Your task to perform on an android device: What's a good restaurant in Miami? Image 0: 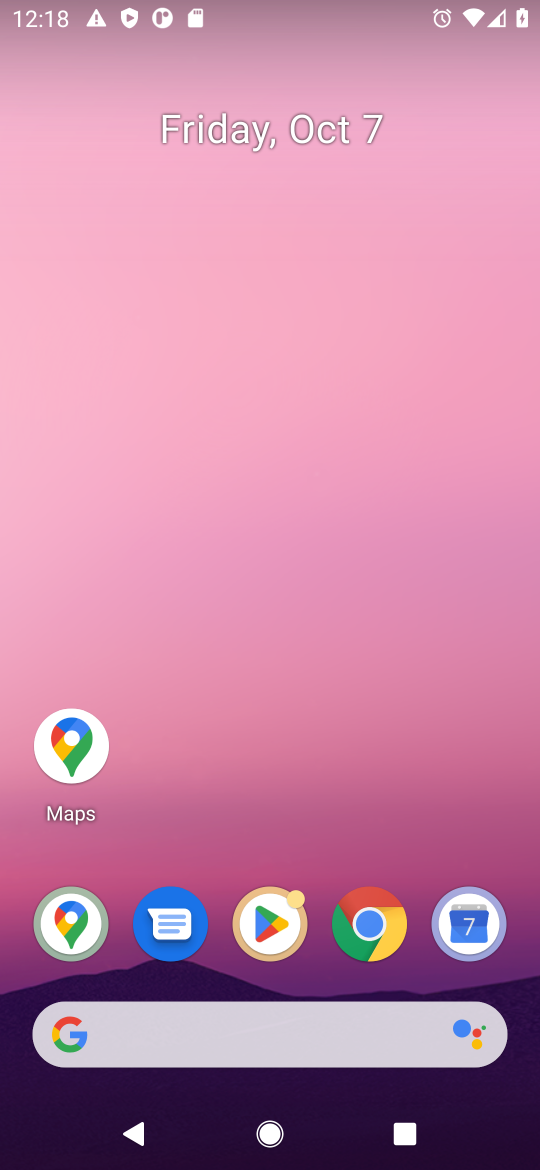
Step 0: click (373, 927)
Your task to perform on an android device: What's a good restaurant in Miami? Image 1: 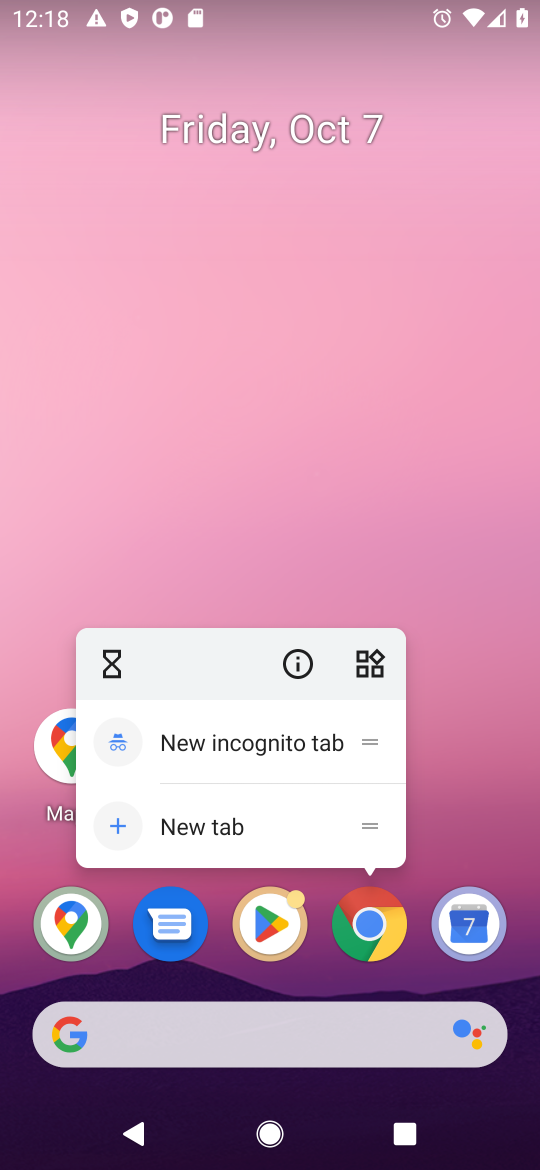
Step 1: click (373, 927)
Your task to perform on an android device: What's a good restaurant in Miami? Image 2: 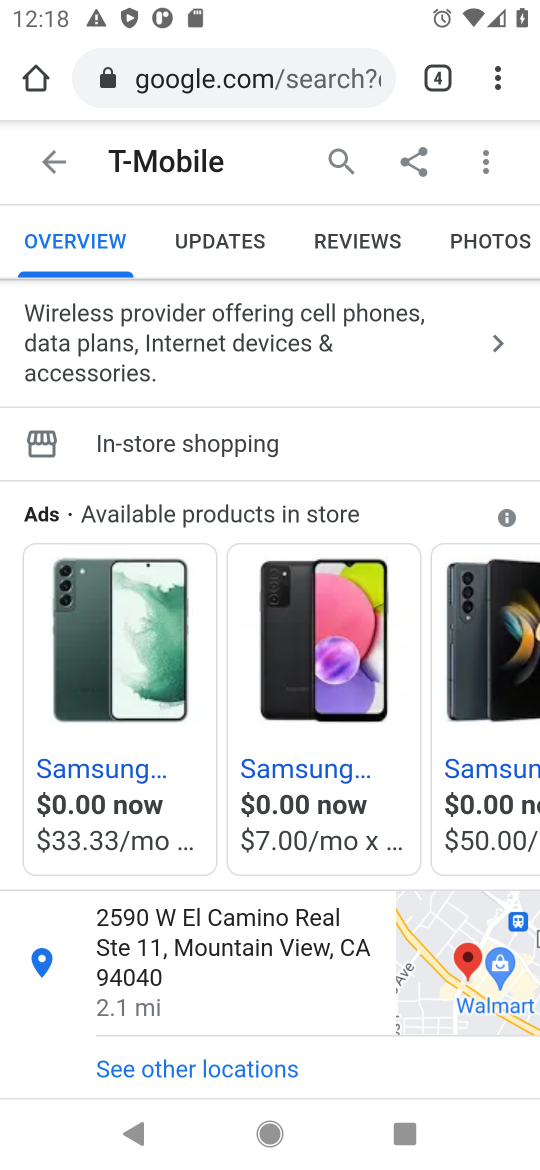
Step 2: click (297, 69)
Your task to perform on an android device: What's a good restaurant in Miami? Image 3: 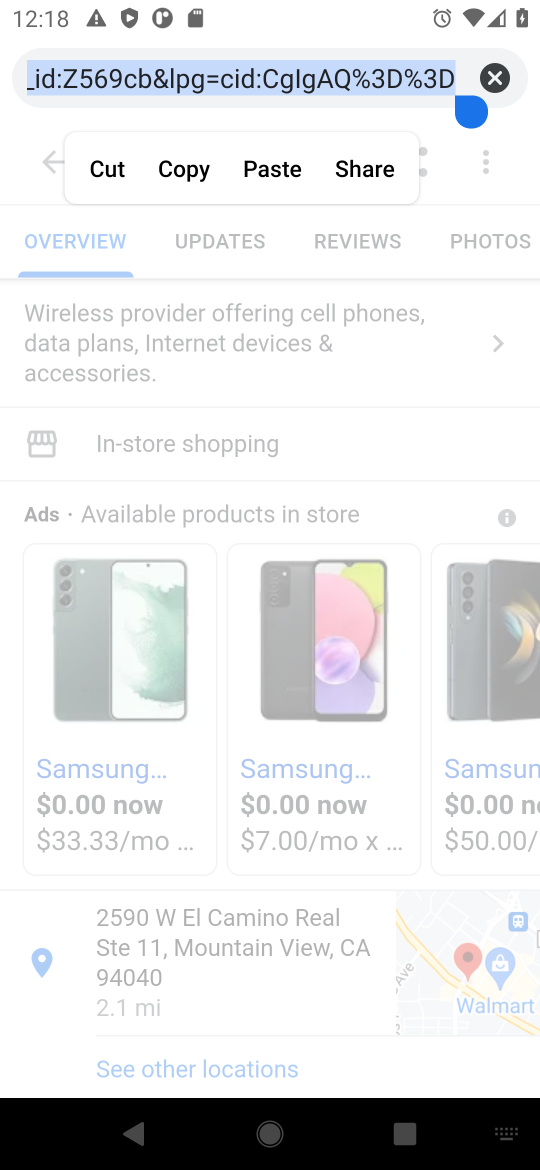
Step 3: click (494, 74)
Your task to perform on an android device: What's a good restaurant in Miami? Image 4: 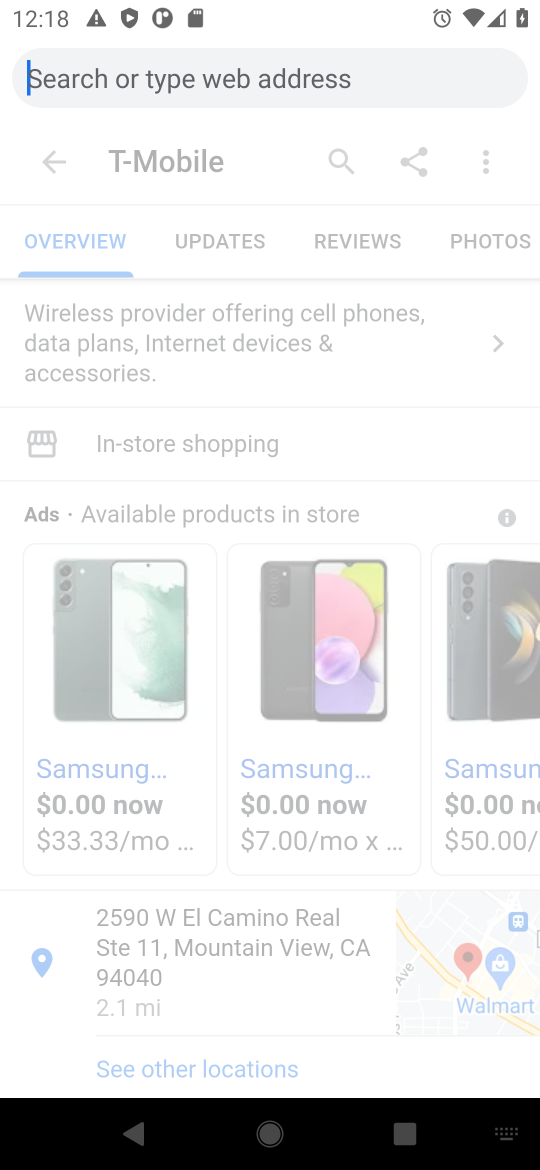
Step 4: type "good restaurant in Miami"
Your task to perform on an android device: What's a good restaurant in Miami? Image 5: 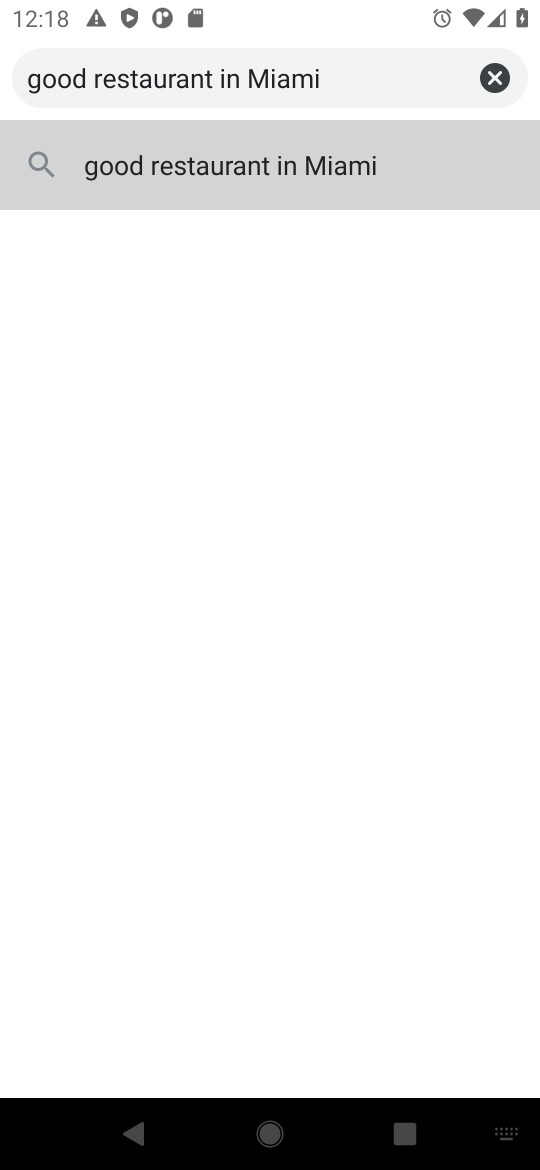
Step 5: click (124, 163)
Your task to perform on an android device: What's a good restaurant in Miami? Image 6: 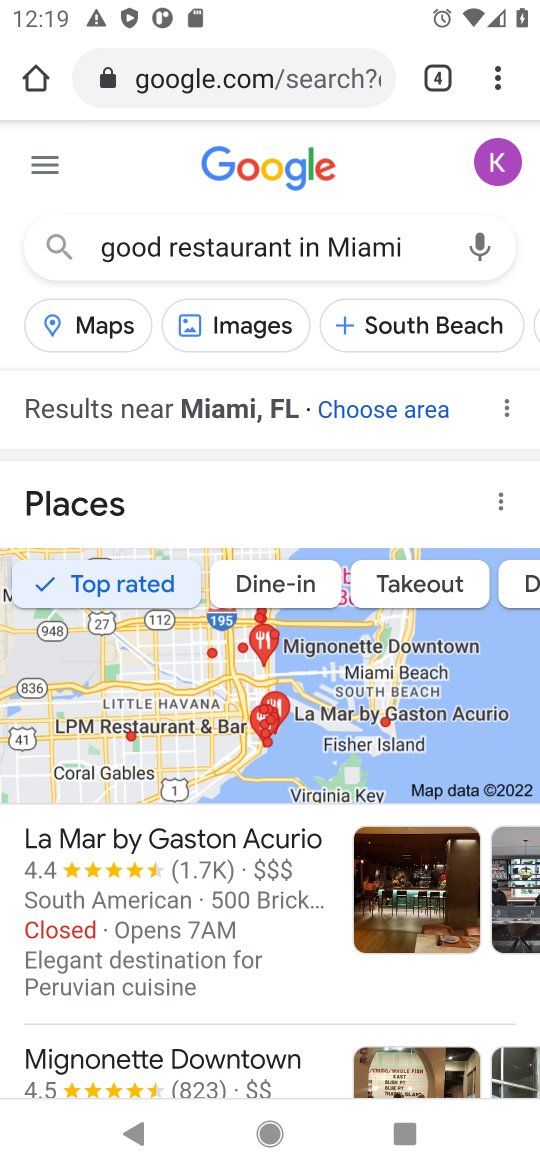
Step 6: drag from (232, 757) to (380, 294)
Your task to perform on an android device: What's a good restaurant in Miami? Image 7: 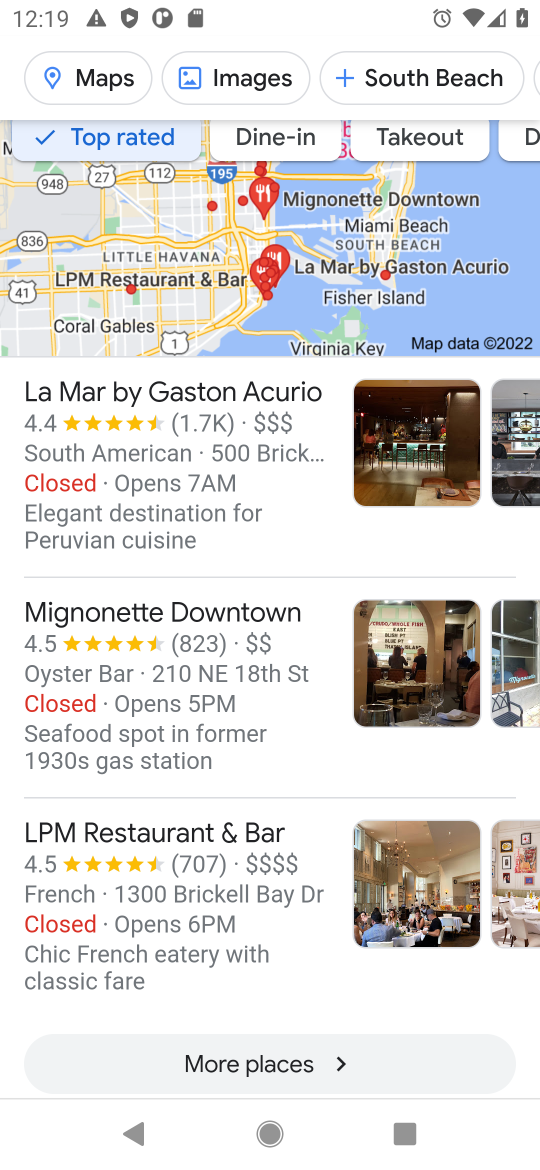
Step 7: drag from (194, 825) to (262, 460)
Your task to perform on an android device: What's a good restaurant in Miami? Image 8: 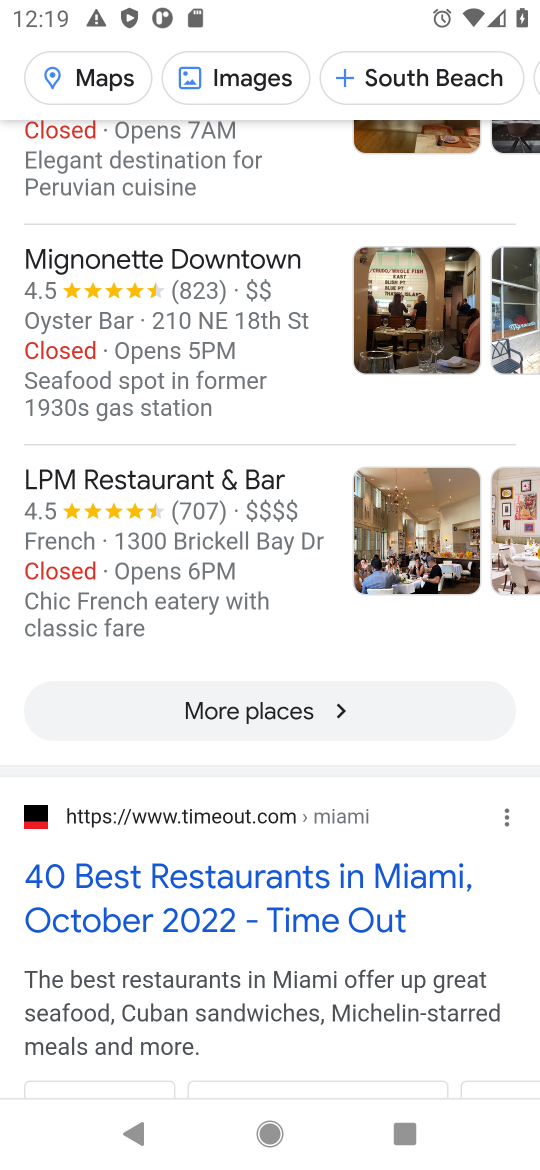
Step 8: click (290, 716)
Your task to perform on an android device: What's a good restaurant in Miami? Image 9: 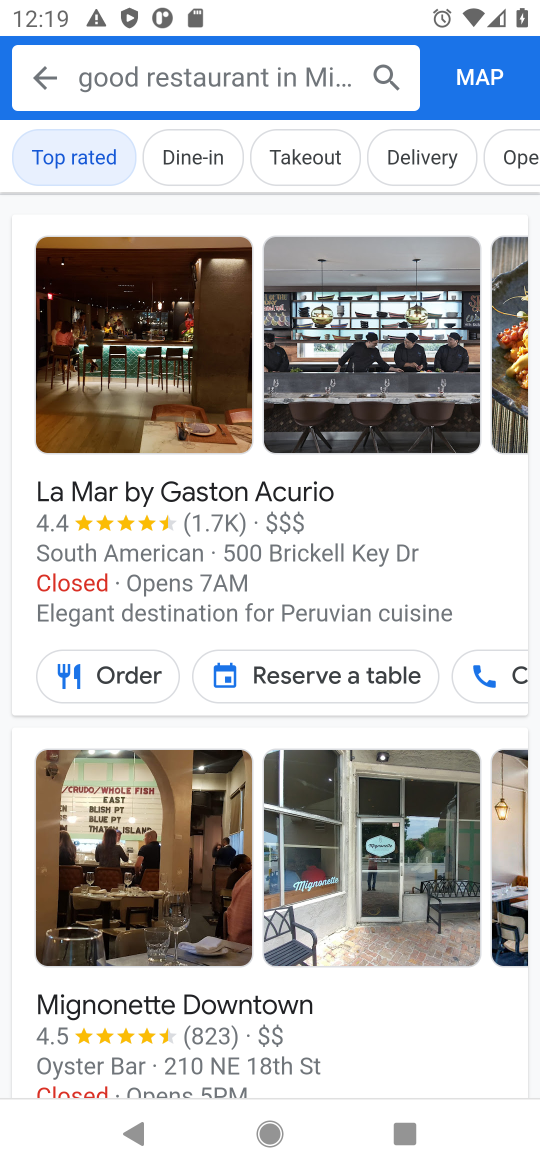
Step 9: task complete